Your task to perform on an android device: turn off airplane mode Image 0: 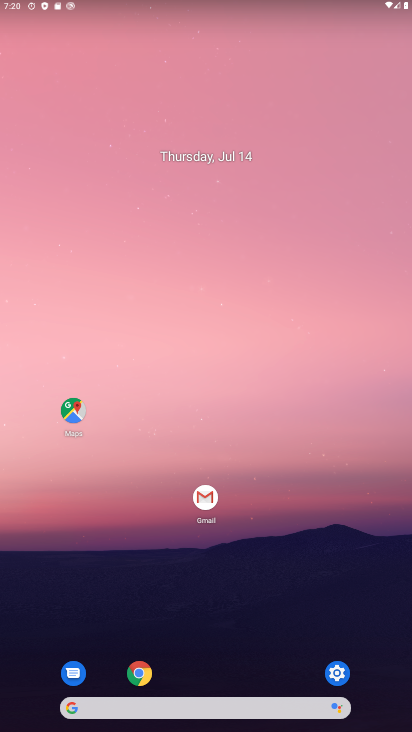
Step 0: press home button
Your task to perform on an android device: turn off airplane mode Image 1: 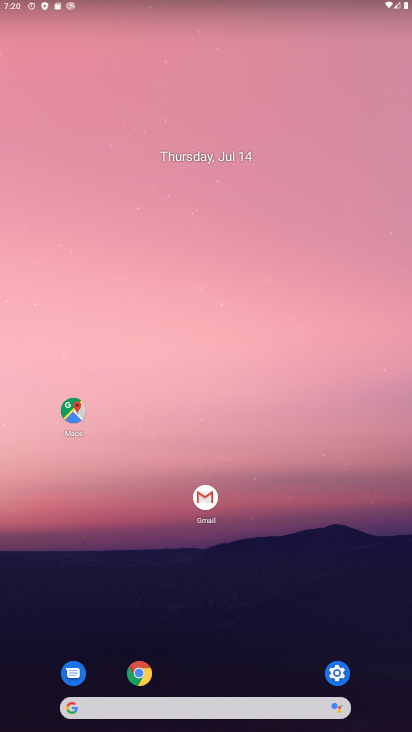
Step 1: drag from (266, 718) to (305, 195)
Your task to perform on an android device: turn off airplane mode Image 2: 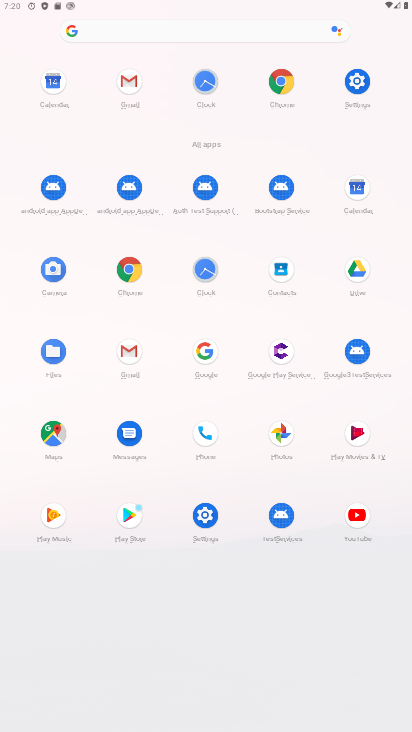
Step 2: click (354, 81)
Your task to perform on an android device: turn off airplane mode Image 3: 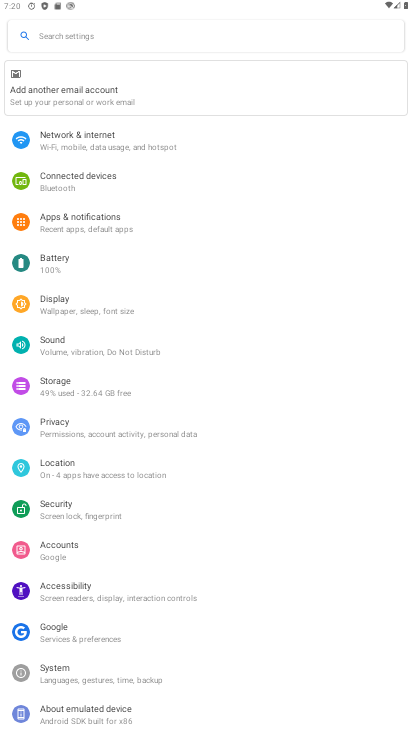
Step 3: click (124, 145)
Your task to perform on an android device: turn off airplane mode Image 4: 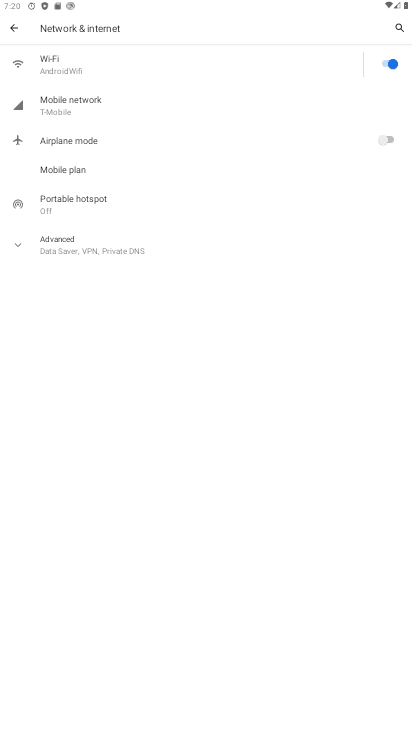
Step 4: click (130, 136)
Your task to perform on an android device: turn off airplane mode Image 5: 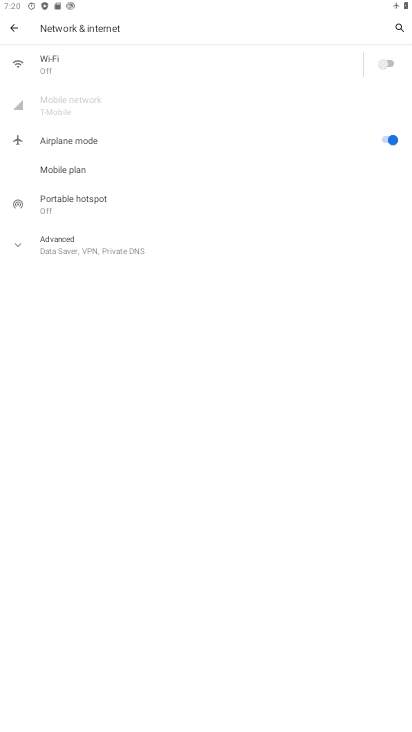
Step 5: click (130, 136)
Your task to perform on an android device: turn off airplane mode Image 6: 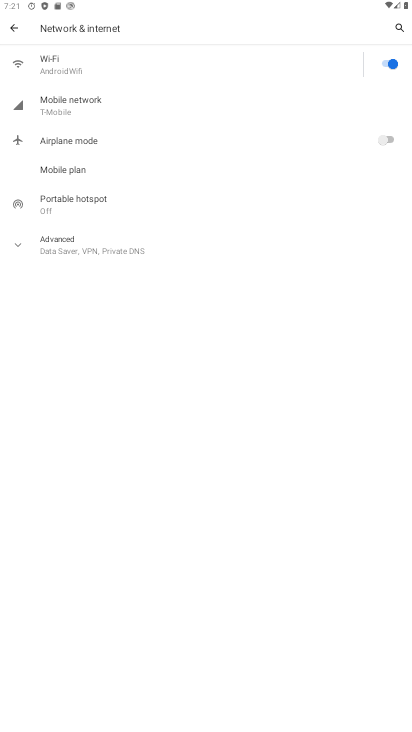
Step 6: task complete